Your task to perform on an android device: change keyboard looks Image 0: 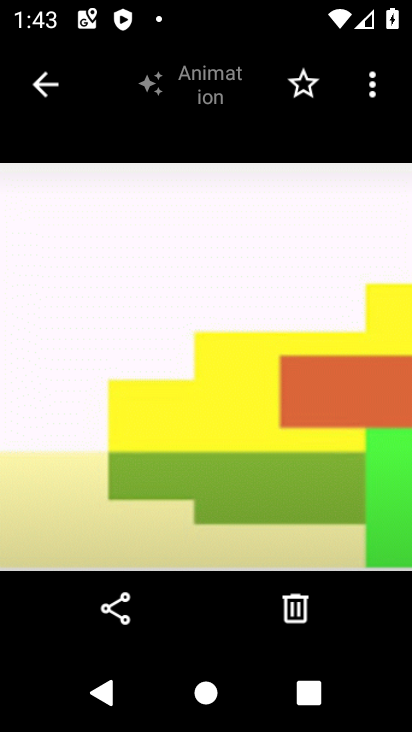
Step 0: press home button
Your task to perform on an android device: change keyboard looks Image 1: 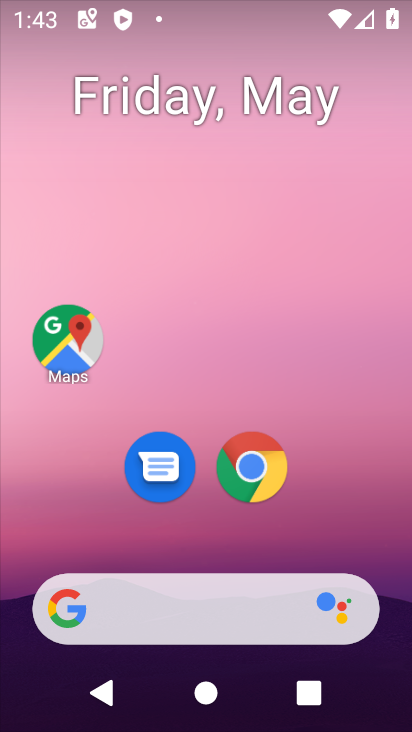
Step 1: drag from (339, 506) to (289, 55)
Your task to perform on an android device: change keyboard looks Image 2: 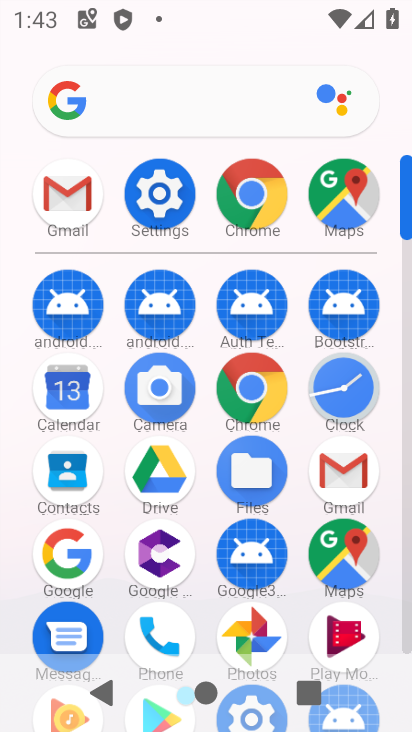
Step 2: click (139, 205)
Your task to perform on an android device: change keyboard looks Image 3: 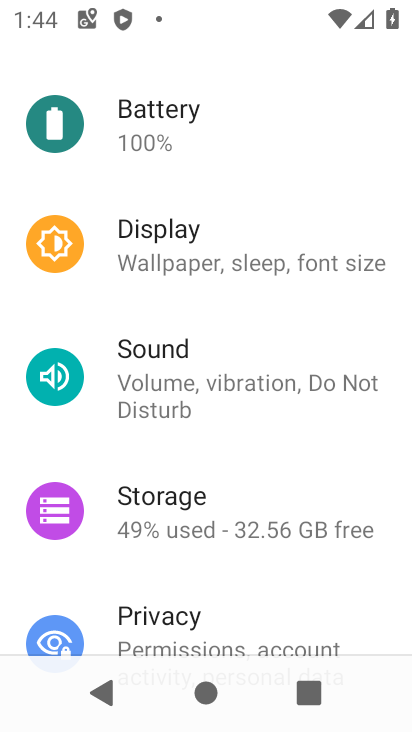
Step 3: drag from (239, 513) to (181, 206)
Your task to perform on an android device: change keyboard looks Image 4: 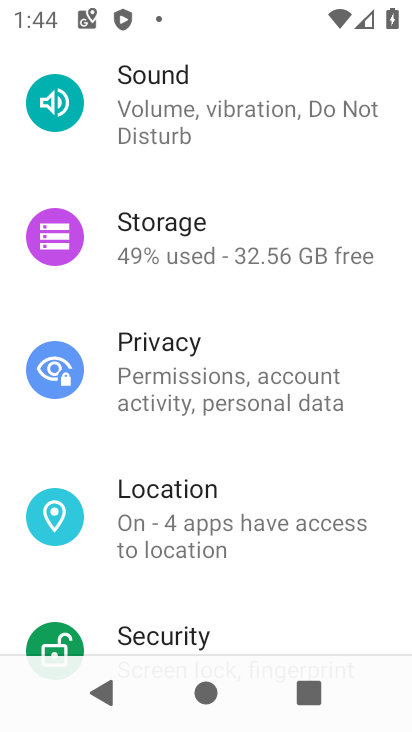
Step 4: drag from (125, 488) to (91, 191)
Your task to perform on an android device: change keyboard looks Image 5: 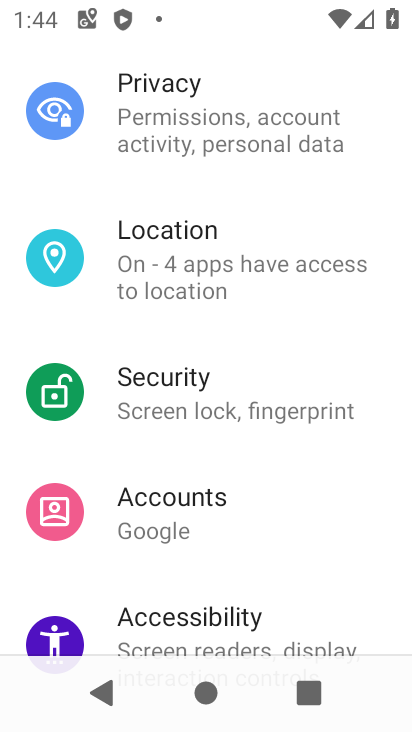
Step 5: drag from (112, 423) to (122, 120)
Your task to perform on an android device: change keyboard looks Image 6: 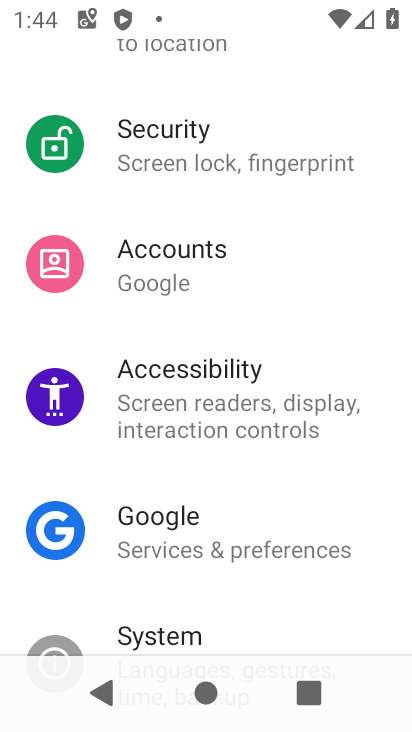
Step 6: drag from (183, 501) to (186, 172)
Your task to perform on an android device: change keyboard looks Image 7: 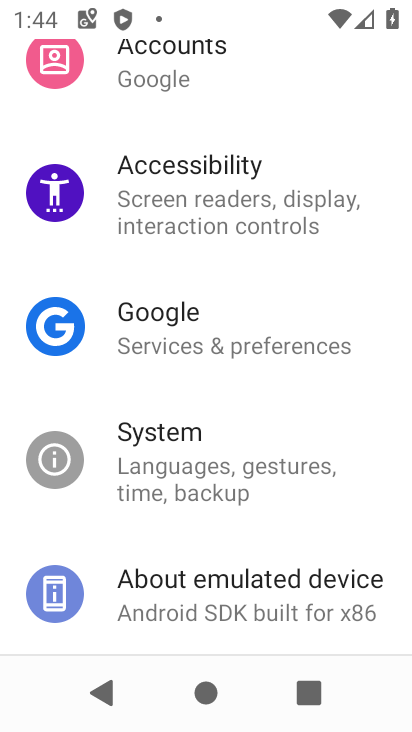
Step 7: click (238, 489)
Your task to perform on an android device: change keyboard looks Image 8: 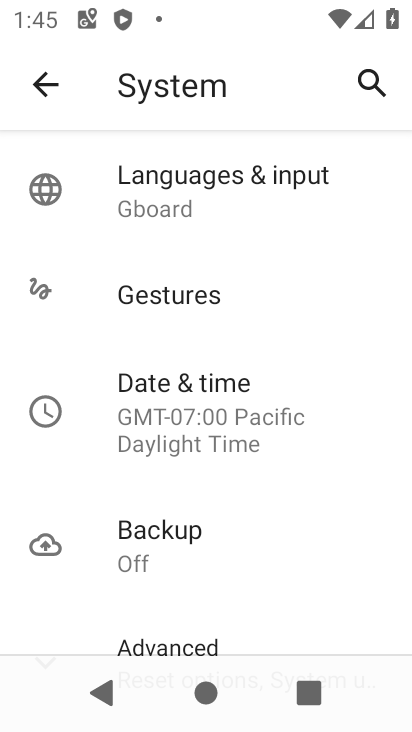
Step 8: drag from (238, 530) to (215, 225)
Your task to perform on an android device: change keyboard looks Image 9: 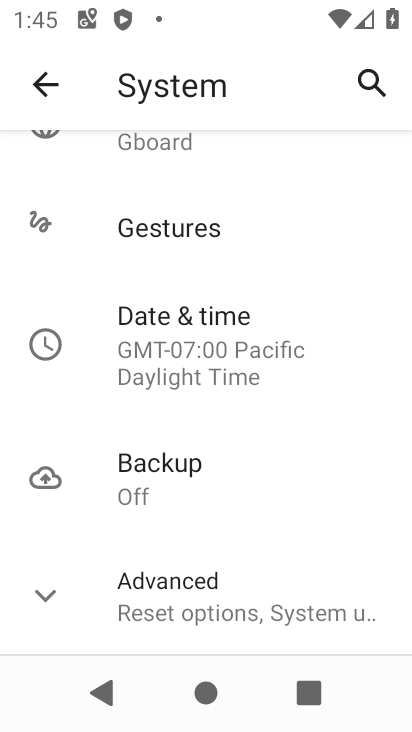
Step 9: drag from (215, 225) to (176, 534)
Your task to perform on an android device: change keyboard looks Image 10: 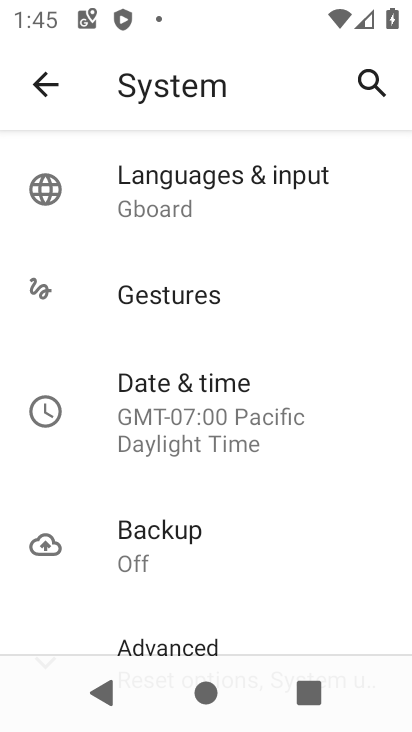
Step 10: drag from (238, 238) to (237, 527)
Your task to perform on an android device: change keyboard looks Image 11: 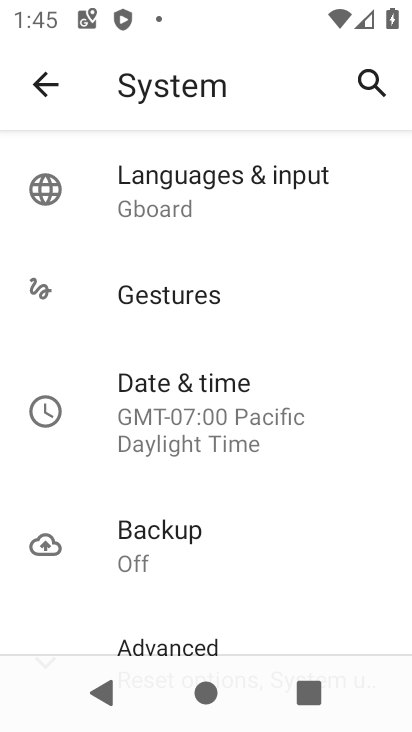
Step 11: drag from (237, 527) to (260, 289)
Your task to perform on an android device: change keyboard looks Image 12: 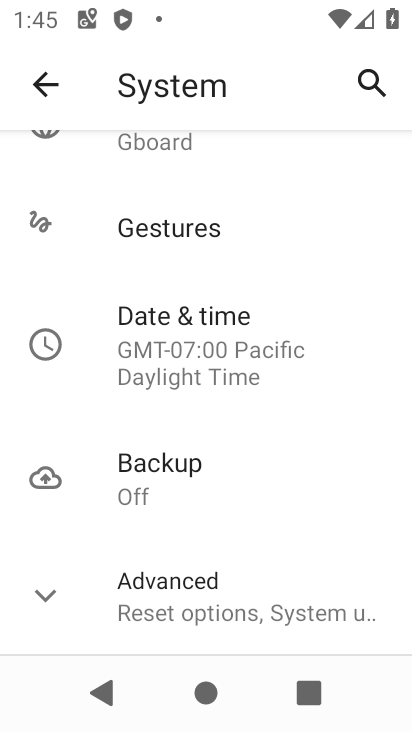
Step 12: drag from (266, 164) to (279, 541)
Your task to perform on an android device: change keyboard looks Image 13: 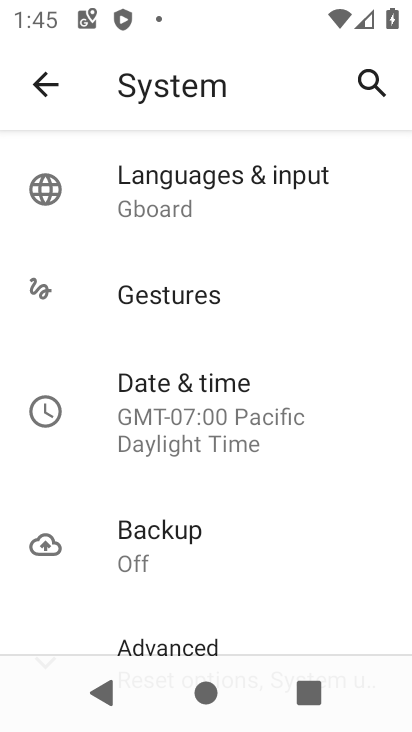
Step 13: click (196, 195)
Your task to perform on an android device: change keyboard looks Image 14: 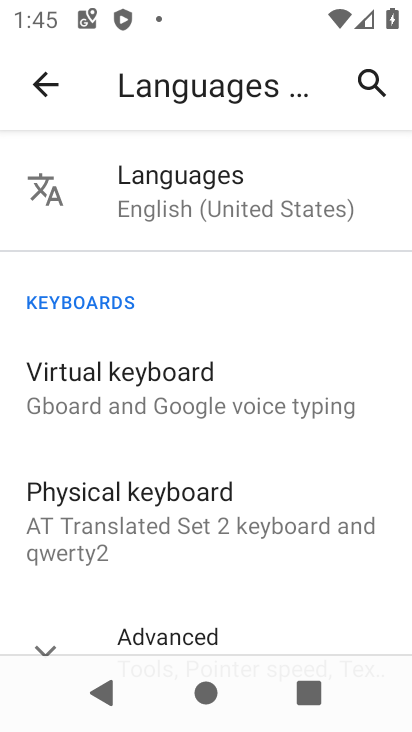
Step 14: click (145, 399)
Your task to perform on an android device: change keyboard looks Image 15: 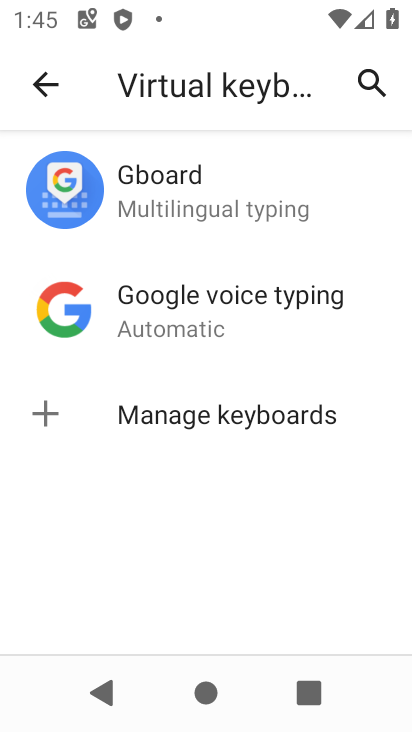
Step 15: click (193, 212)
Your task to perform on an android device: change keyboard looks Image 16: 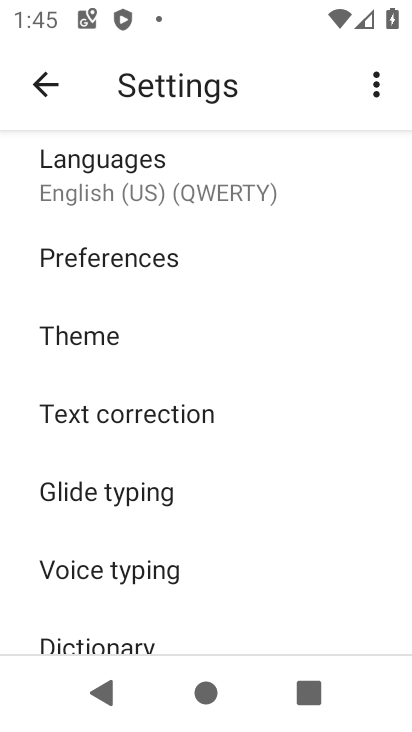
Step 16: click (133, 336)
Your task to perform on an android device: change keyboard looks Image 17: 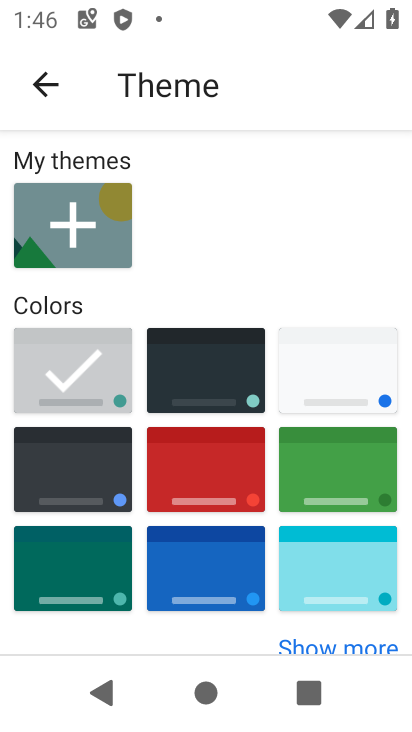
Step 17: click (166, 370)
Your task to perform on an android device: change keyboard looks Image 18: 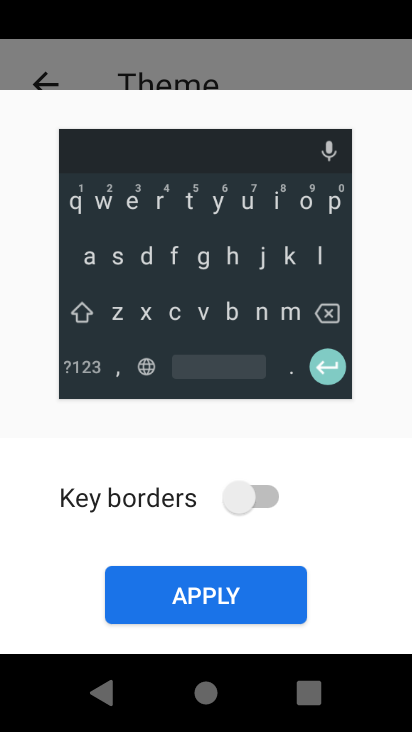
Step 18: click (212, 595)
Your task to perform on an android device: change keyboard looks Image 19: 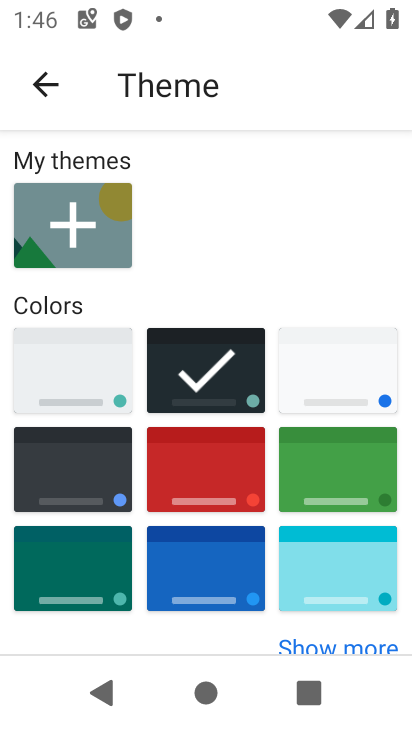
Step 19: task complete